Your task to perform on an android device: Open Android settings Image 0: 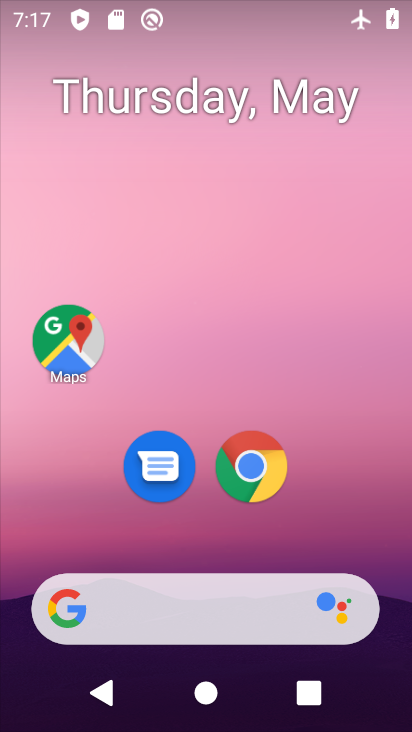
Step 0: drag from (334, 501) to (164, 8)
Your task to perform on an android device: Open Android settings Image 1: 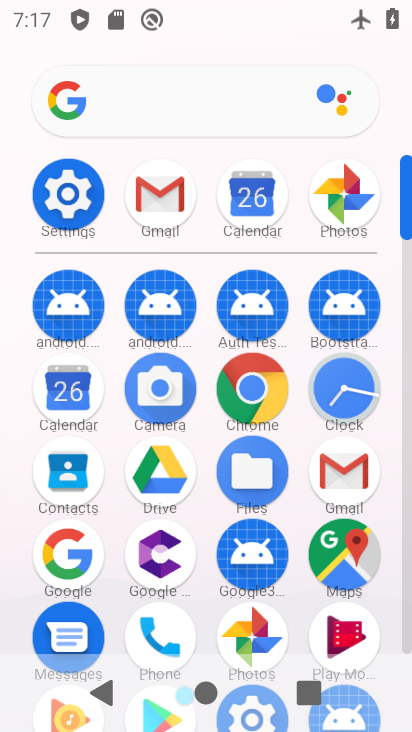
Step 1: click (64, 187)
Your task to perform on an android device: Open Android settings Image 2: 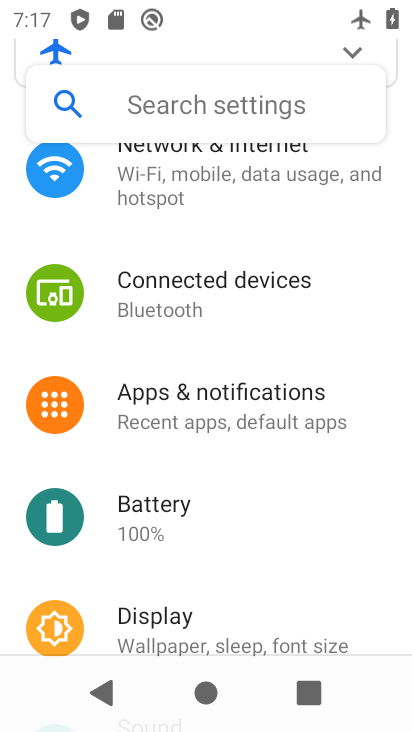
Step 2: task complete